Your task to perform on an android device: Search for "logitech g502" on target, select the first entry, add it to the cart, then select checkout. Image 0: 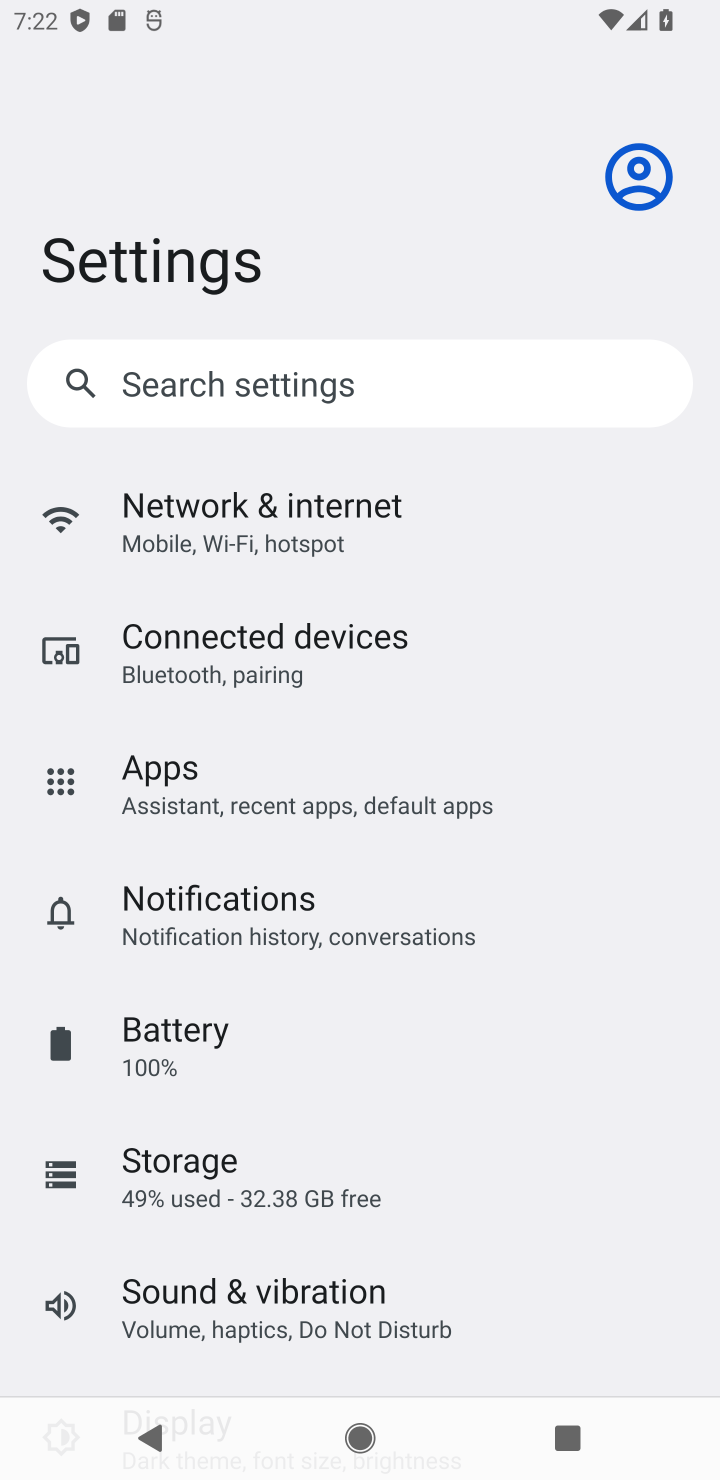
Step 0: press home button
Your task to perform on an android device: Search for "logitech g502" on target, select the first entry, add it to the cart, then select checkout. Image 1: 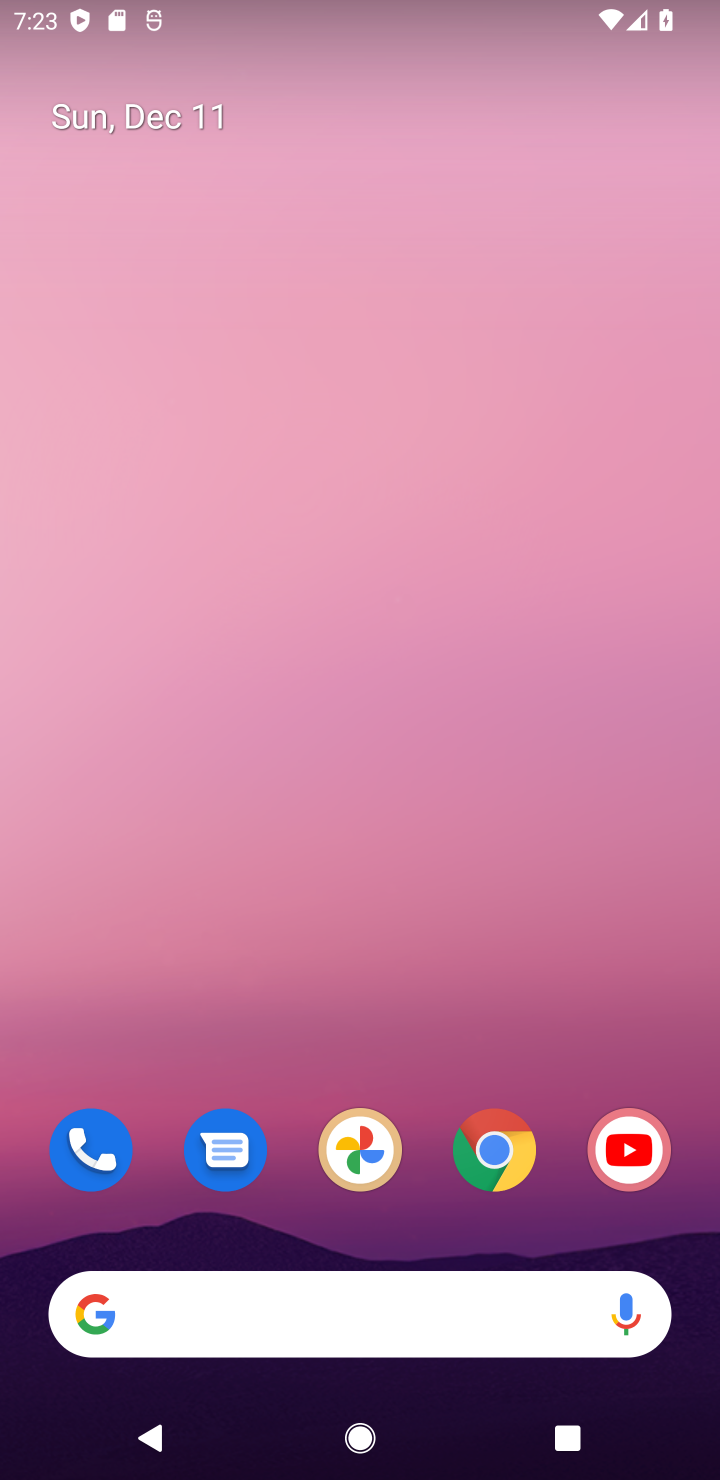
Step 1: click (492, 1152)
Your task to perform on an android device: Search for "logitech g502" on target, select the first entry, add it to the cart, then select checkout. Image 2: 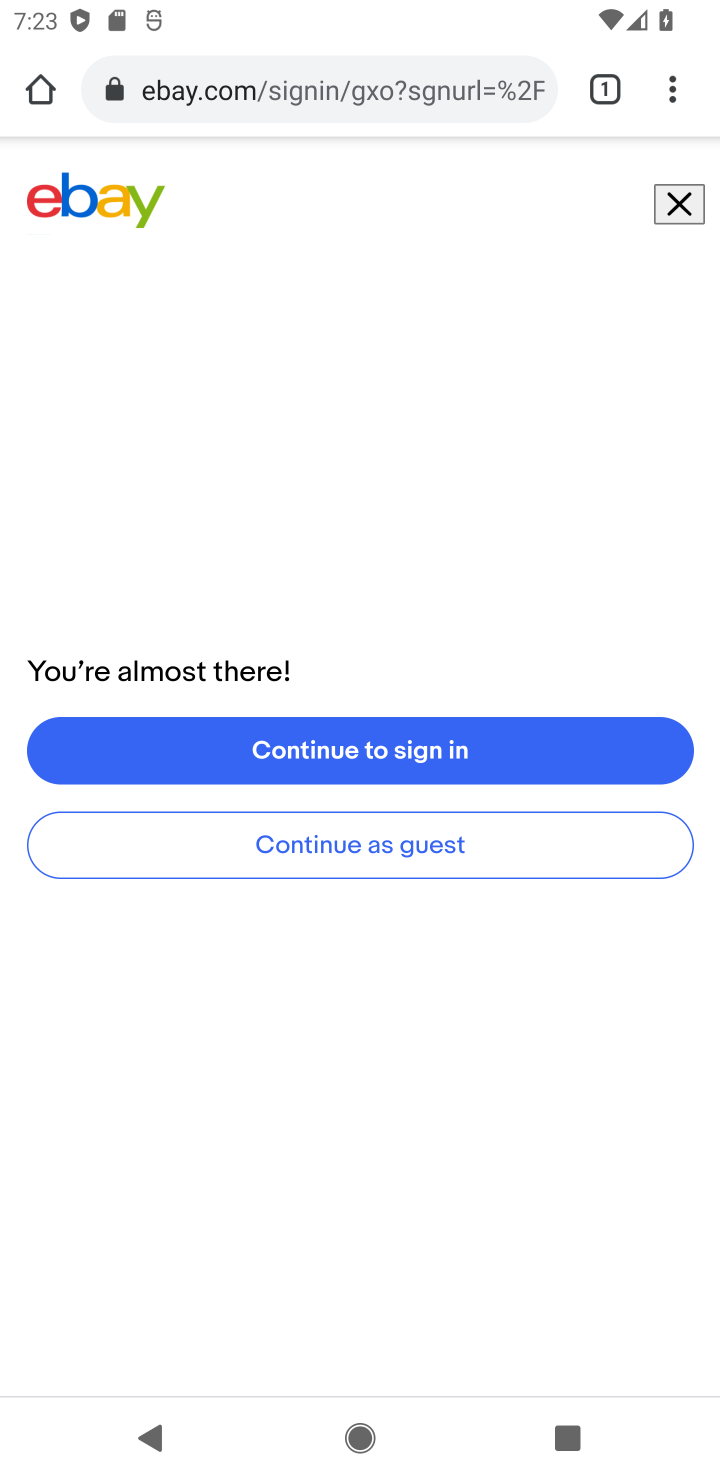
Step 2: click (331, 102)
Your task to perform on an android device: Search for "logitech g502" on target, select the first entry, add it to the cart, then select checkout. Image 3: 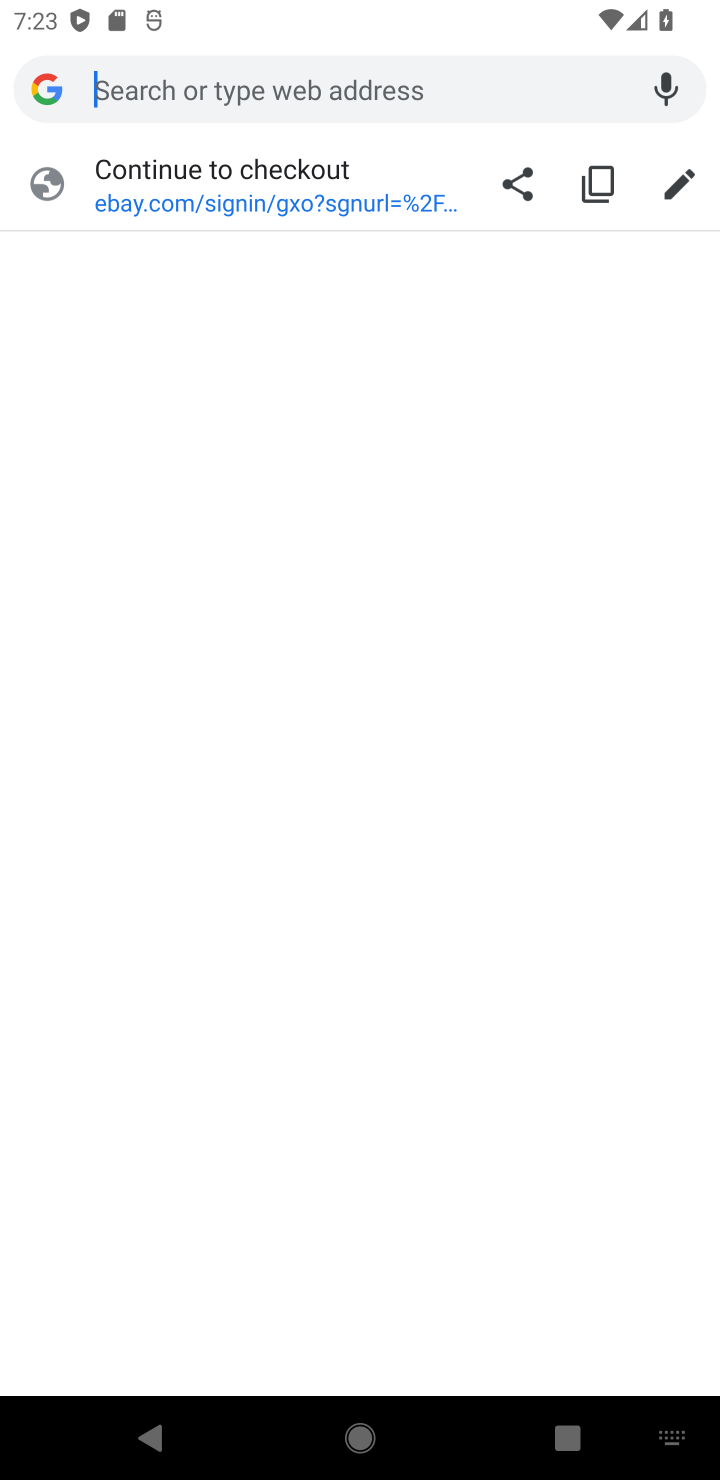
Step 3: type "target"
Your task to perform on an android device: Search for "logitech g502" on target, select the first entry, add it to the cart, then select checkout. Image 4: 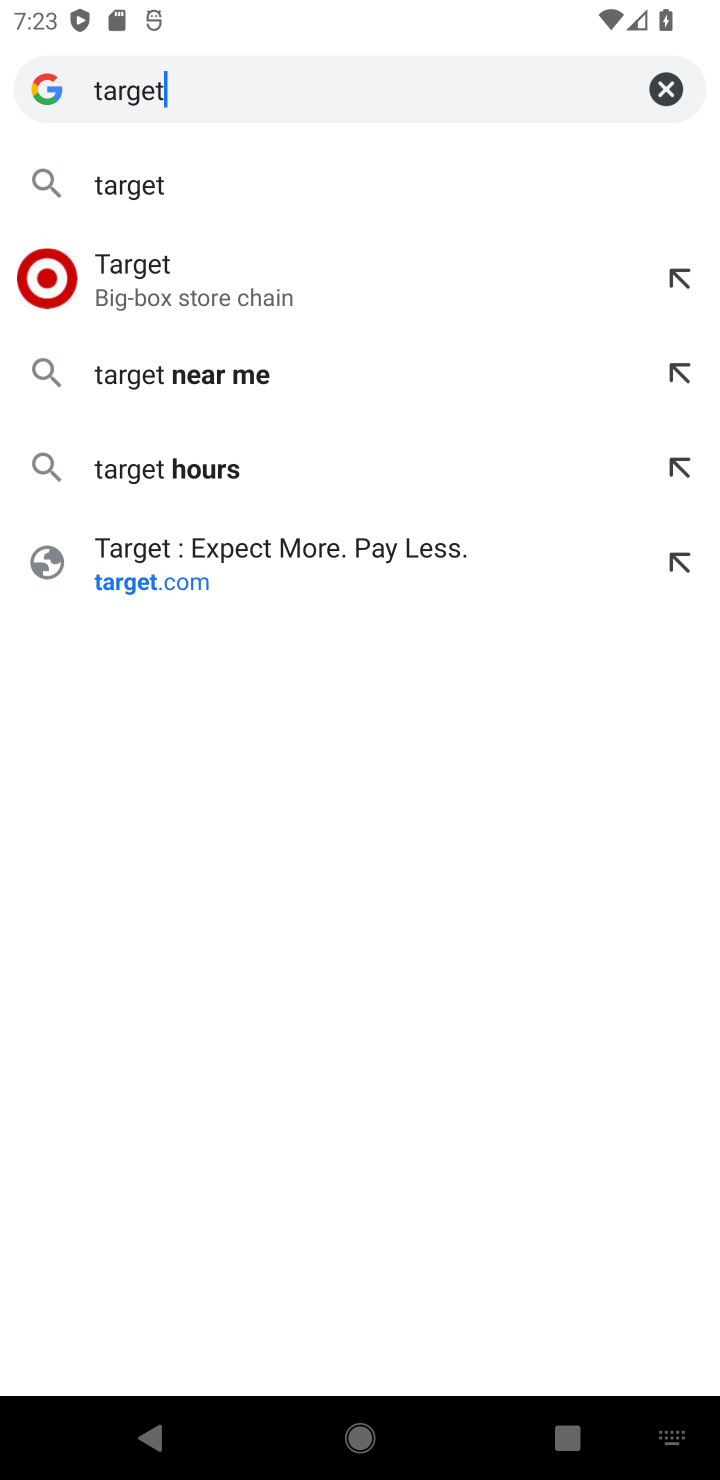
Step 4: click (129, 274)
Your task to perform on an android device: Search for "logitech g502" on target, select the first entry, add it to the cart, then select checkout. Image 5: 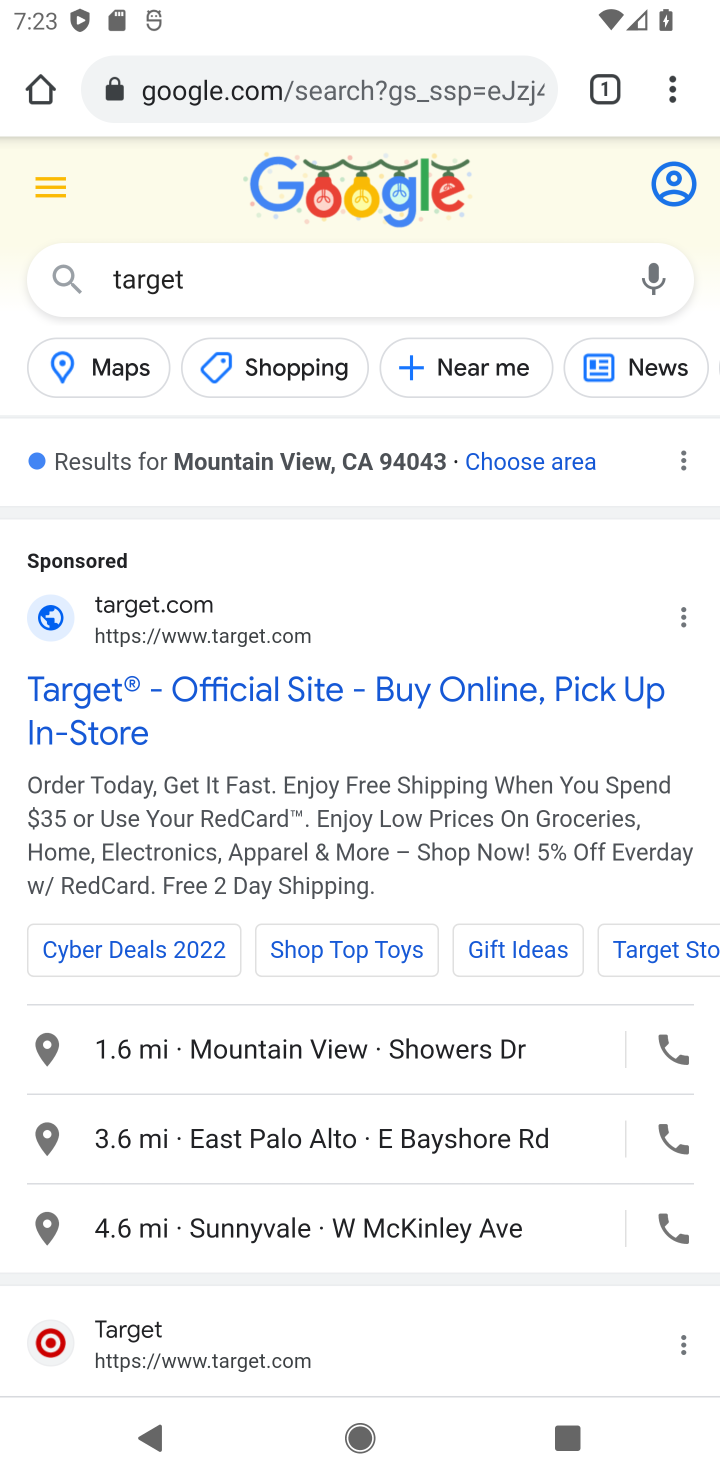
Step 5: click (173, 1348)
Your task to perform on an android device: Search for "logitech g502" on target, select the first entry, add it to the cart, then select checkout. Image 6: 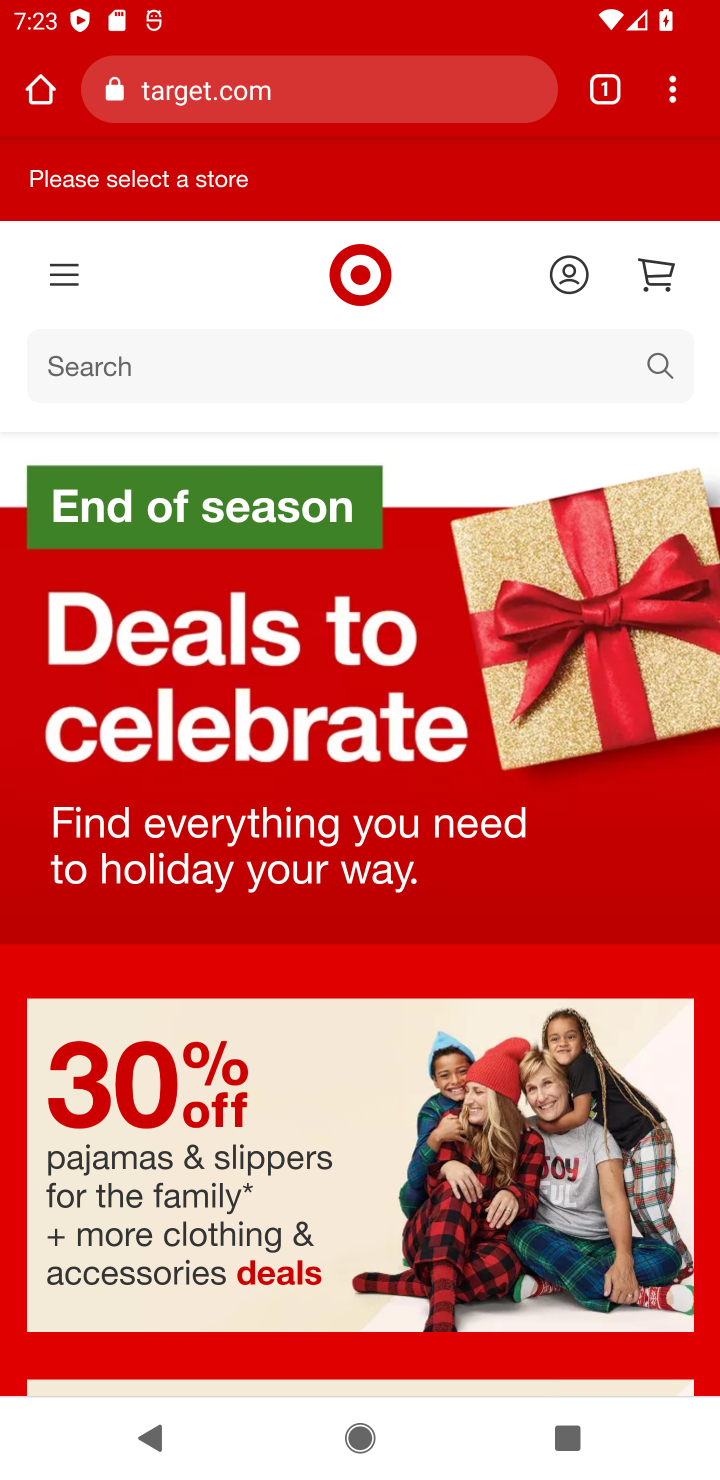
Step 6: click (381, 387)
Your task to perform on an android device: Search for "logitech g502" on target, select the first entry, add it to the cart, then select checkout. Image 7: 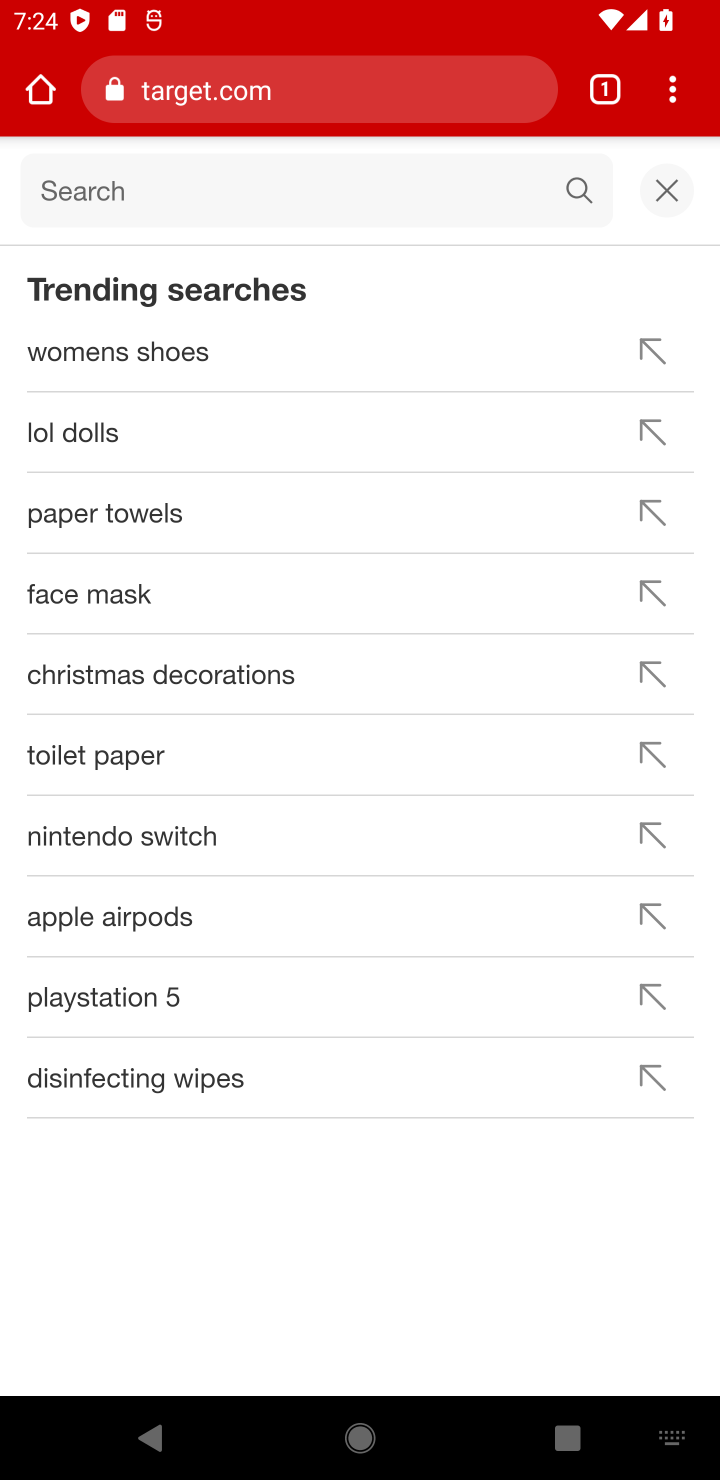
Step 7: type "logitech g502"
Your task to perform on an android device: Search for "logitech g502" on target, select the first entry, add it to the cart, then select checkout. Image 8: 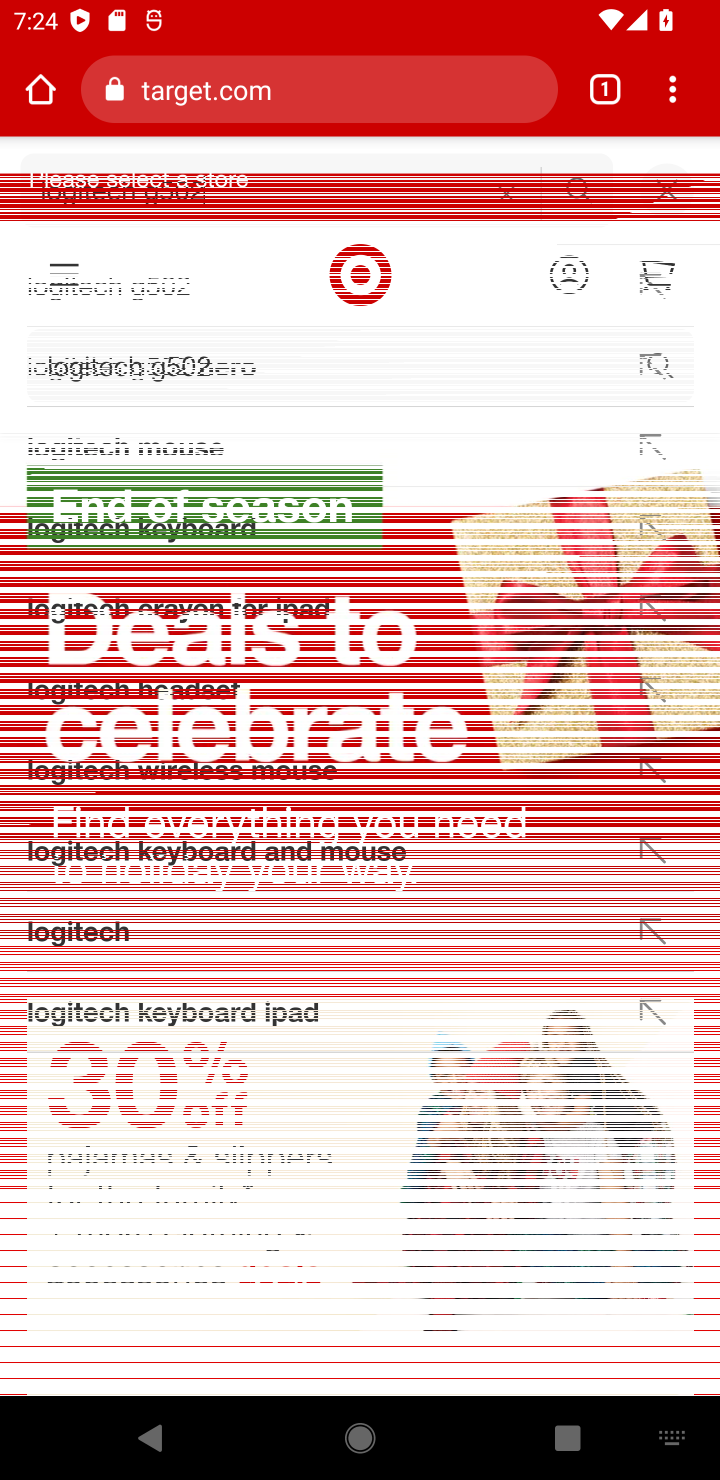
Step 8: click (112, 289)
Your task to perform on an android device: Search for "logitech g502" on target, select the first entry, add it to the cart, then select checkout. Image 9: 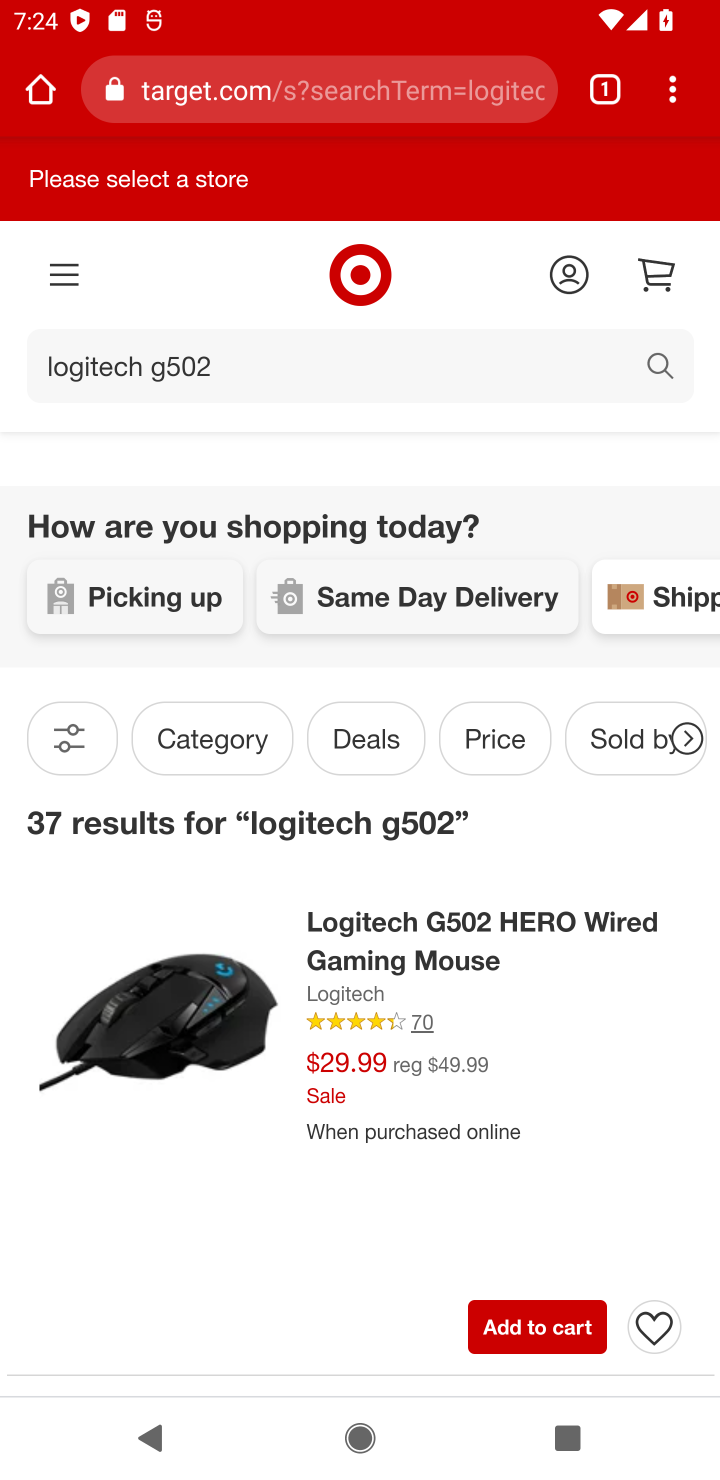
Step 9: click (549, 931)
Your task to perform on an android device: Search for "logitech g502" on target, select the first entry, add it to the cart, then select checkout. Image 10: 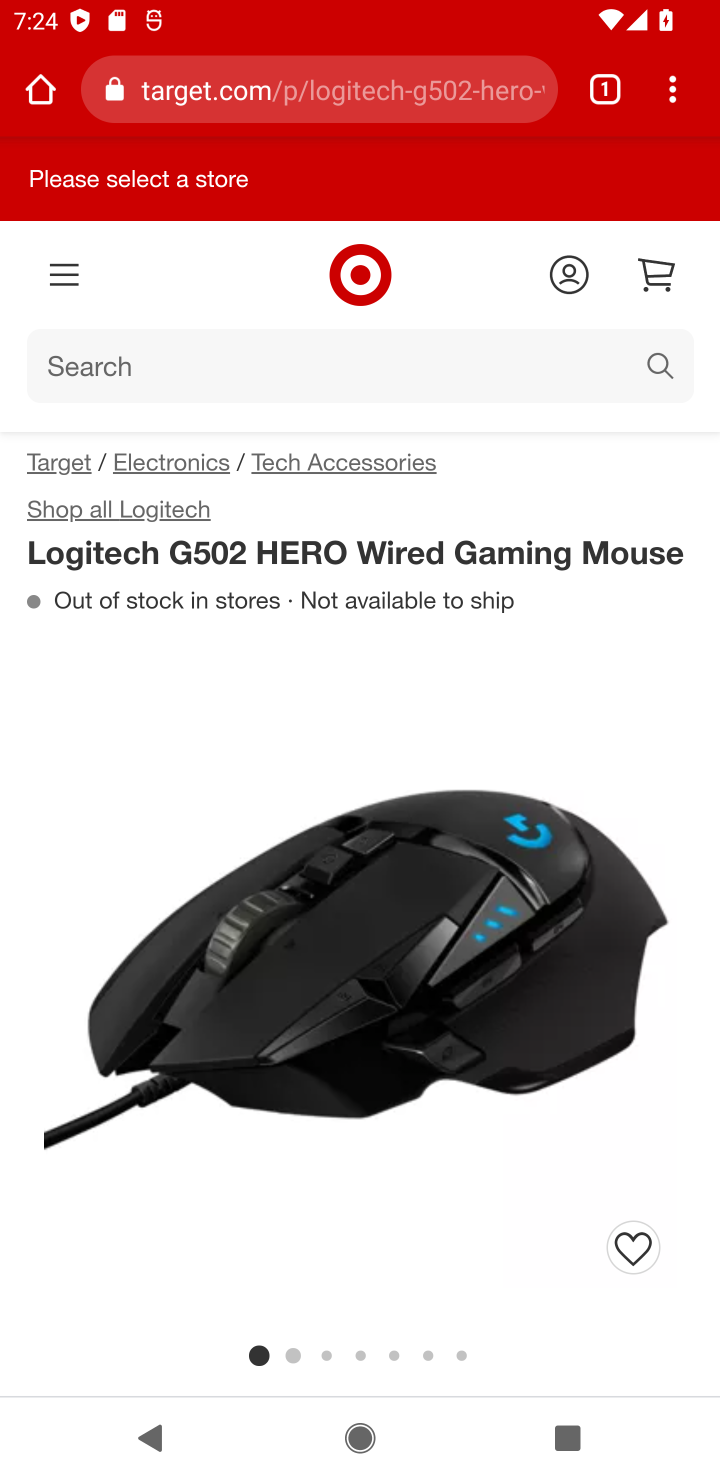
Step 10: drag from (482, 1072) to (572, 442)
Your task to perform on an android device: Search for "logitech g502" on target, select the first entry, add it to the cart, then select checkout. Image 11: 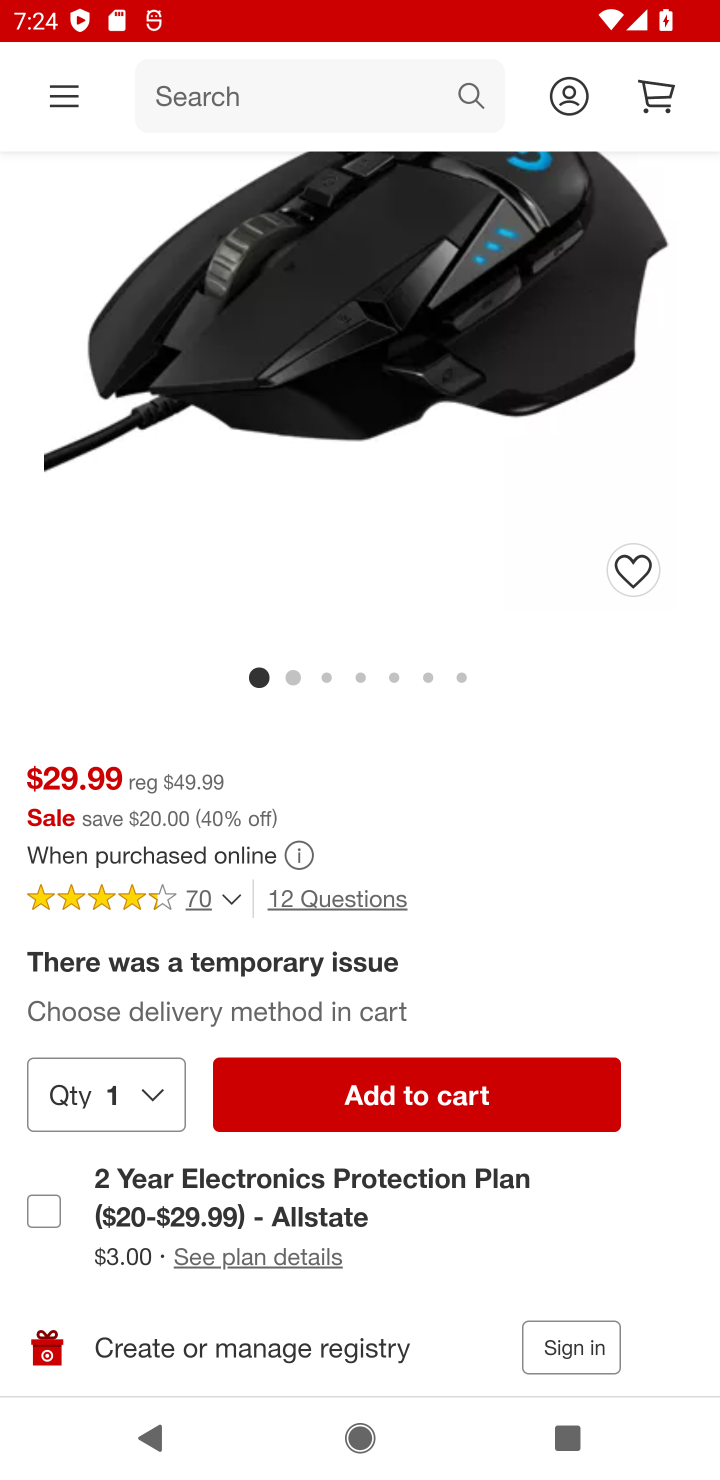
Step 11: click (429, 1093)
Your task to perform on an android device: Search for "logitech g502" on target, select the first entry, add it to the cart, then select checkout. Image 12: 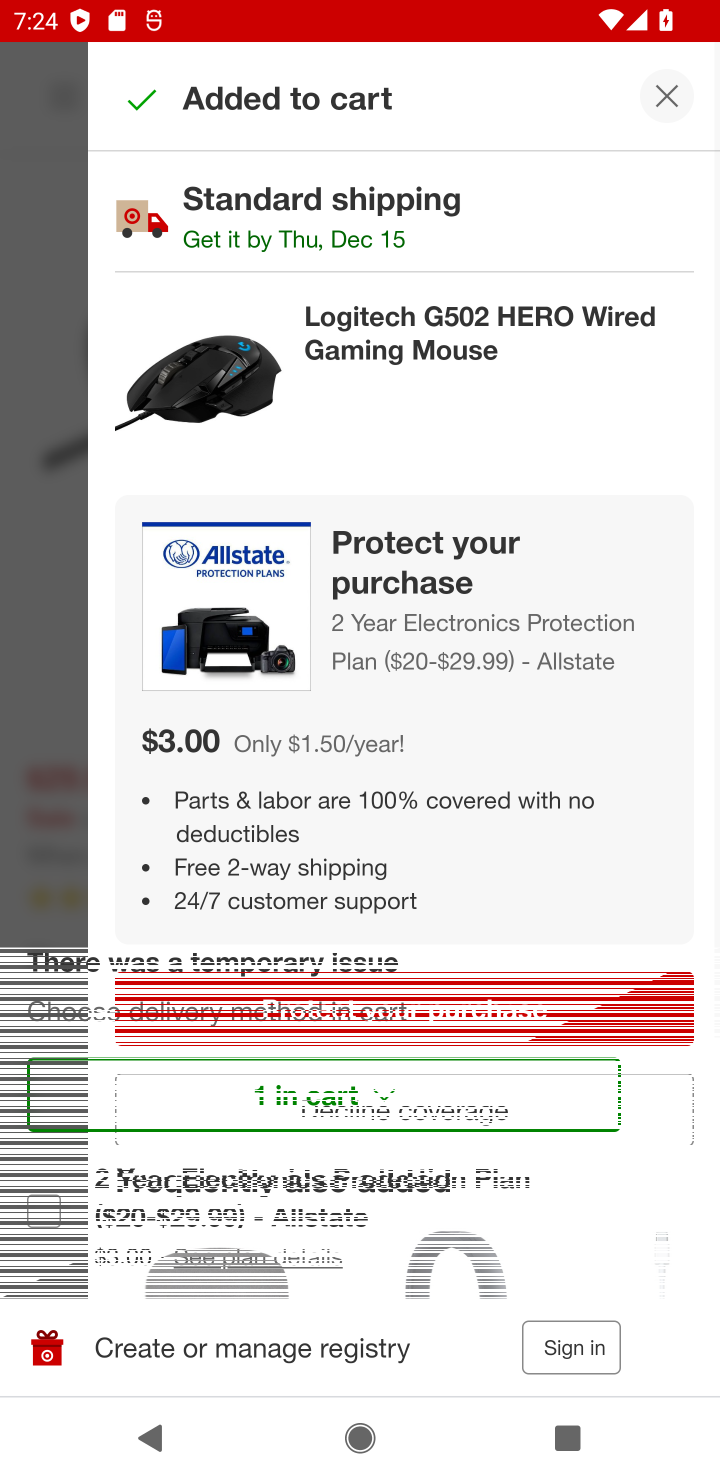
Step 12: click (670, 87)
Your task to perform on an android device: Search for "logitech g502" on target, select the first entry, add it to the cart, then select checkout. Image 13: 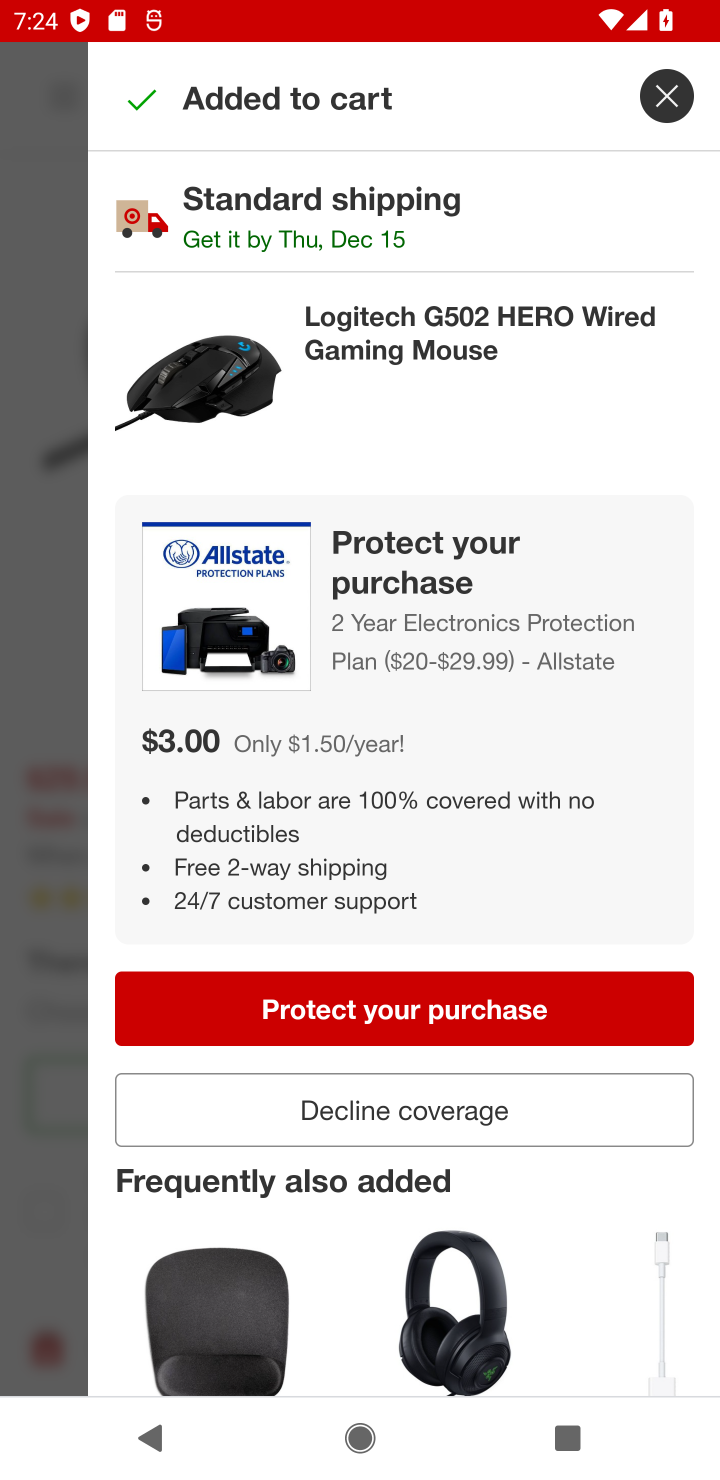
Step 13: click (369, 1114)
Your task to perform on an android device: Search for "logitech g502" on target, select the first entry, add it to the cart, then select checkout. Image 14: 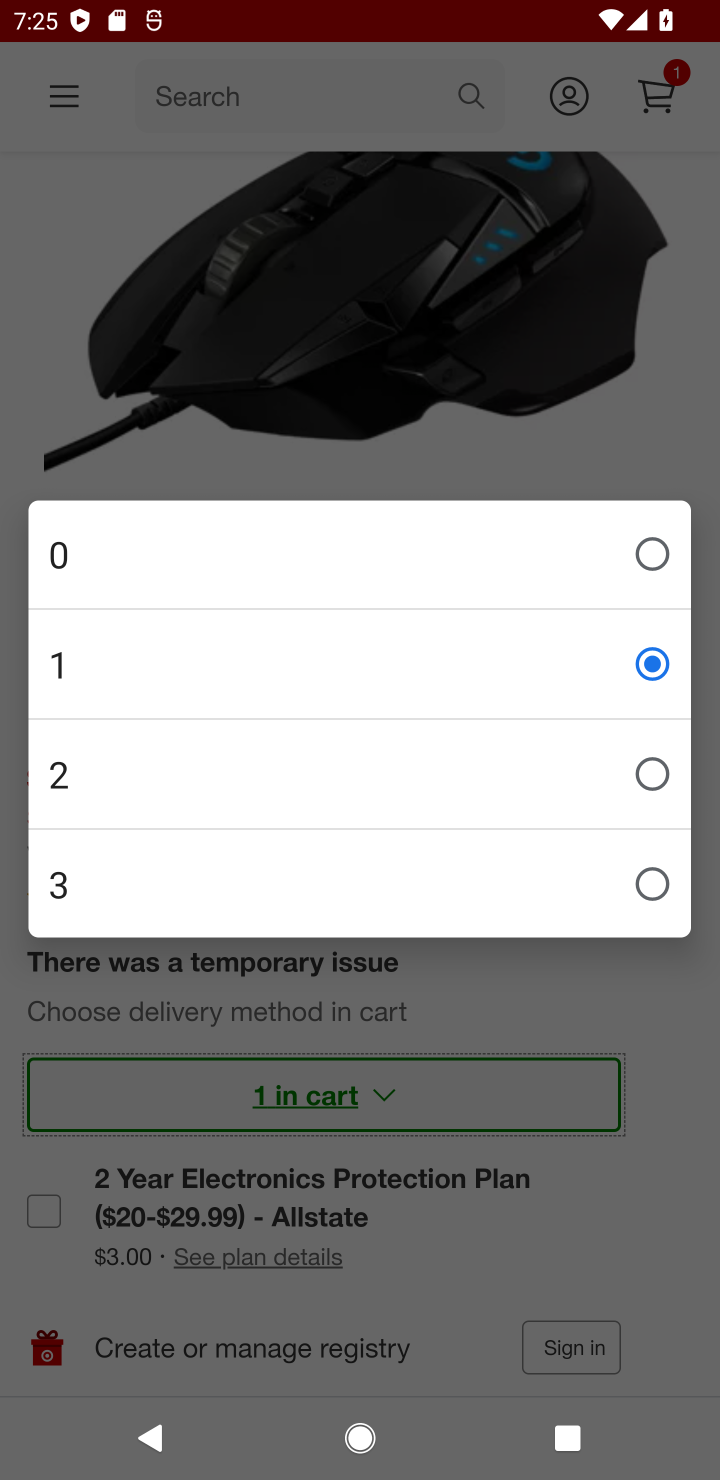
Step 14: click (645, 678)
Your task to perform on an android device: Search for "logitech g502" on target, select the first entry, add it to the cart, then select checkout. Image 15: 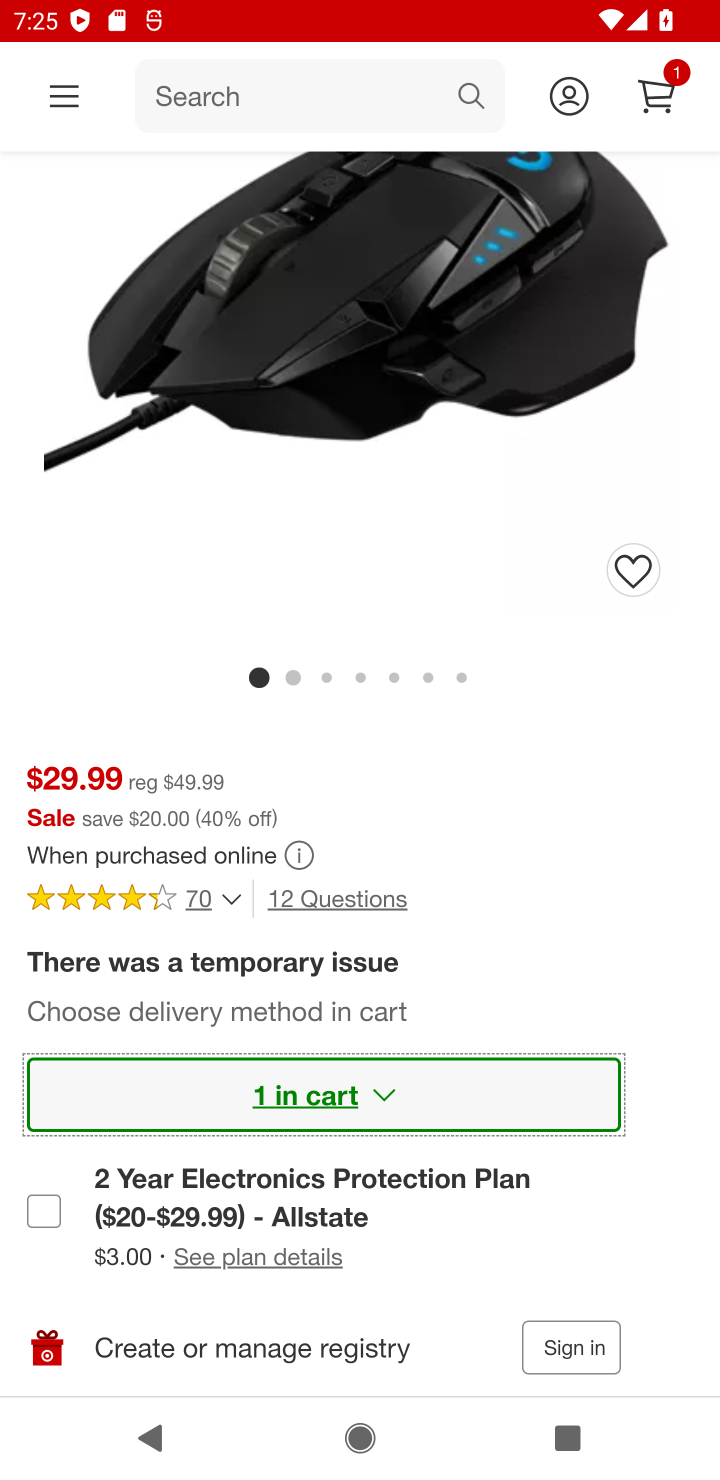
Step 15: click (672, 76)
Your task to perform on an android device: Search for "logitech g502" on target, select the first entry, add it to the cart, then select checkout. Image 16: 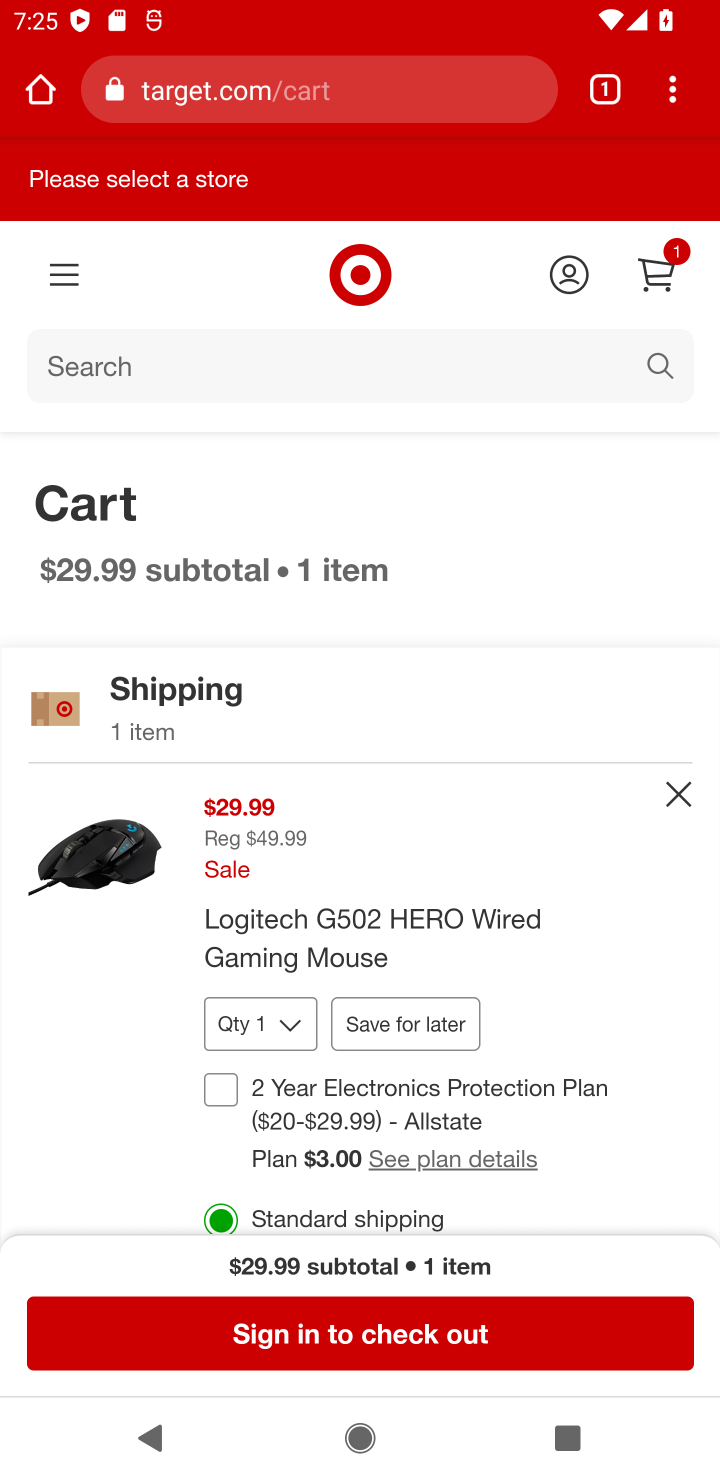
Step 16: click (365, 1330)
Your task to perform on an android device: Search for "logitech g502" on target, select the first entry, add it to the cart, then select checkout. Image 17: 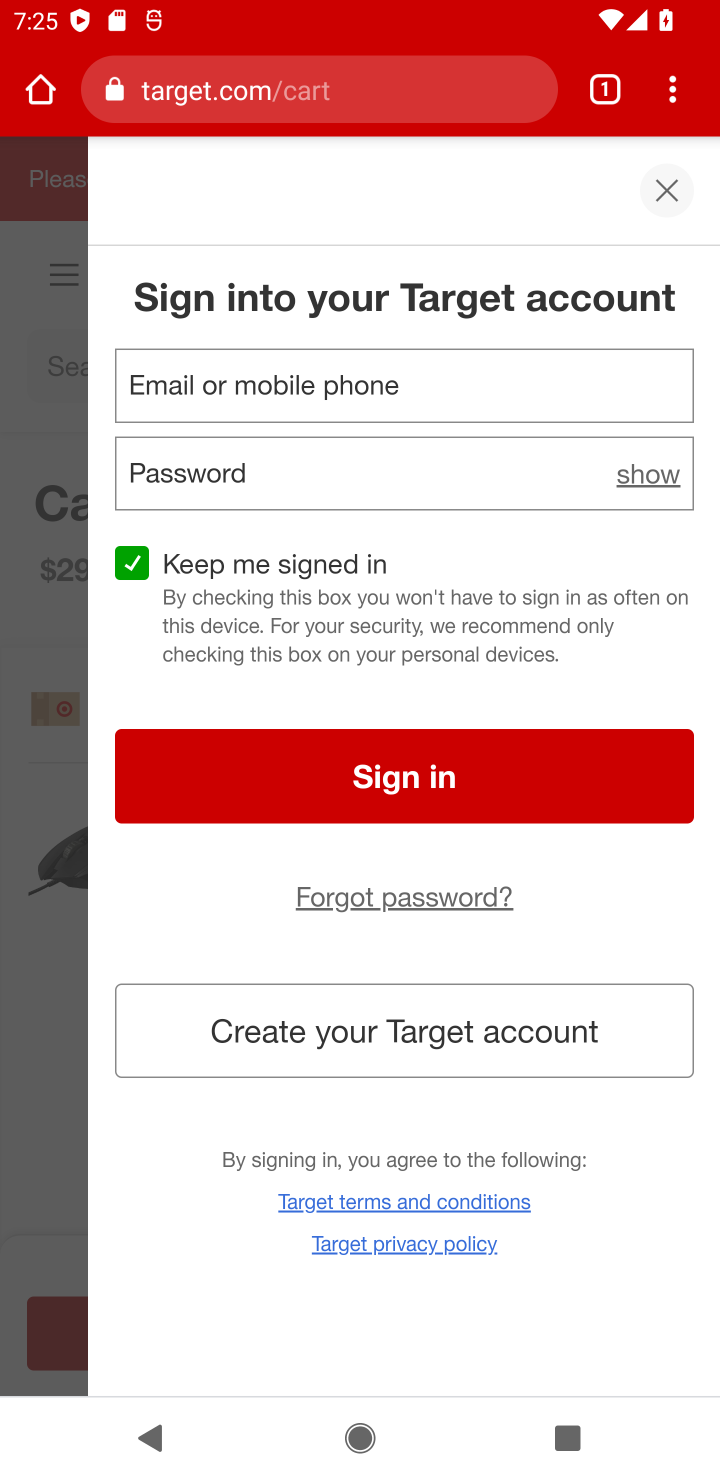
Step 17: task complete